Your task to perform on an android device: Open privacy settings Image 0: 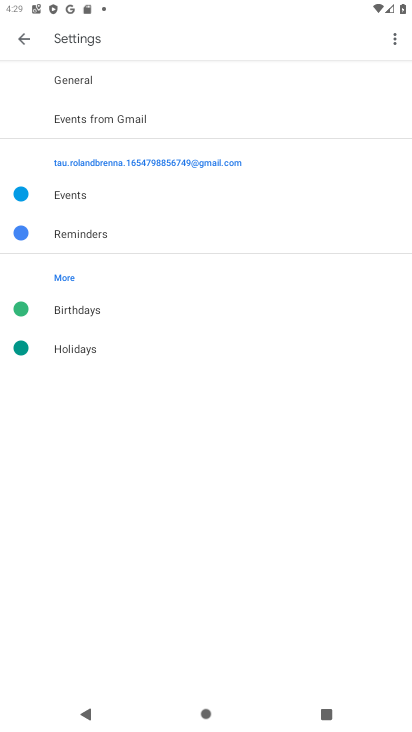
Step 0: press home button
Your task to perform on an android device: Open privacy settings Image 1: 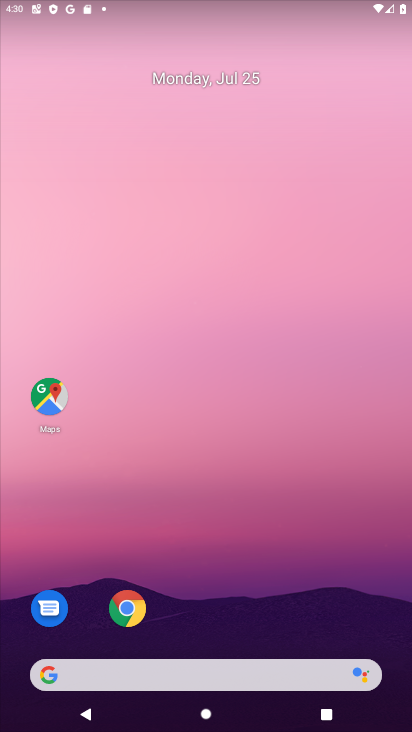
Step 1: drag from (254, 618) to (254, 17)
Your task to perform on an android device: Open privacy settings Image 2: 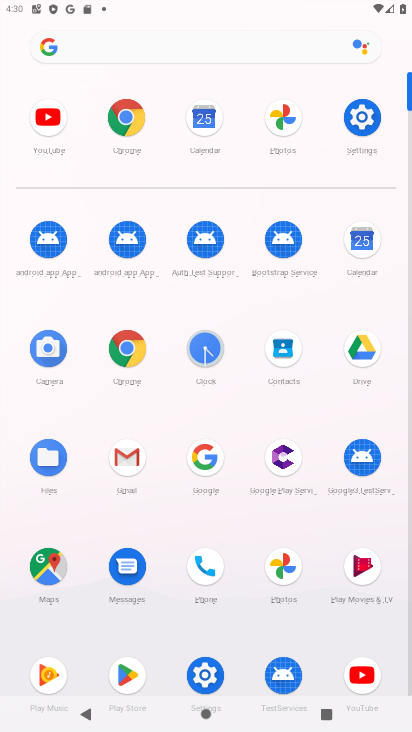
Step 2: click (363, 111)
Your task to perform on an android device: Open privacy settings Image 3: 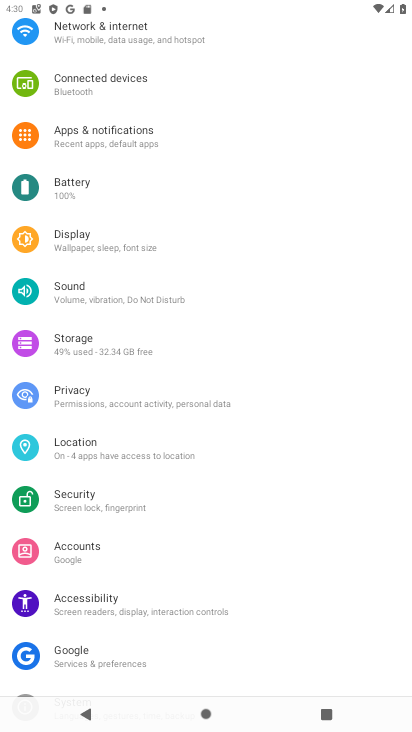
Step 3: click (109, 392)
Your task to perform on an android device: Open privacy settings Image 4: 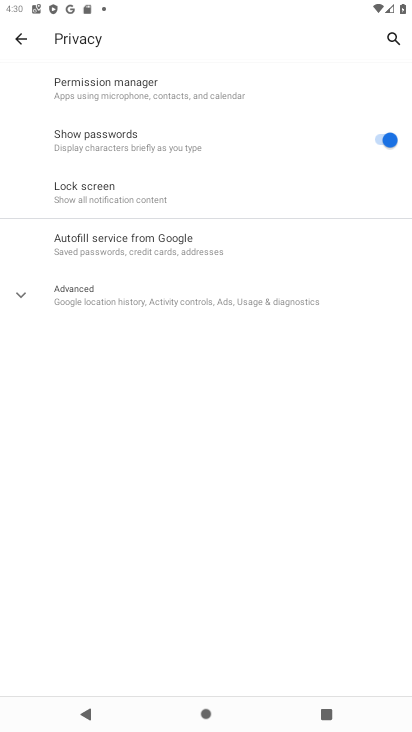
Step 4: click (16, 293)
Your task to perform on an android device: Open privacy settings Image 5: 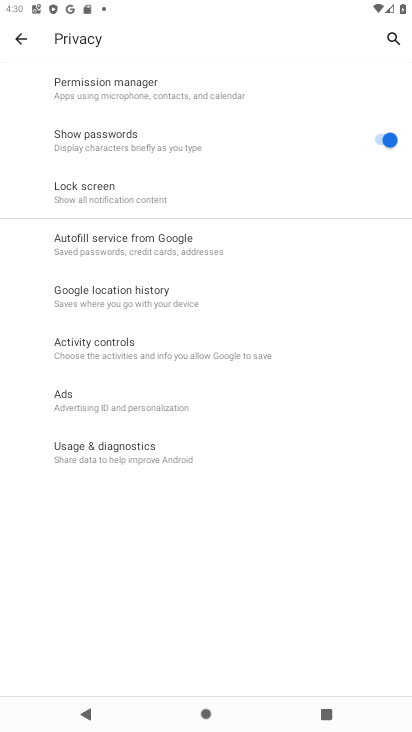
Step 5: task complete